Your task to perform on an android device: Open calendar and show me the second week of next month Image 0: 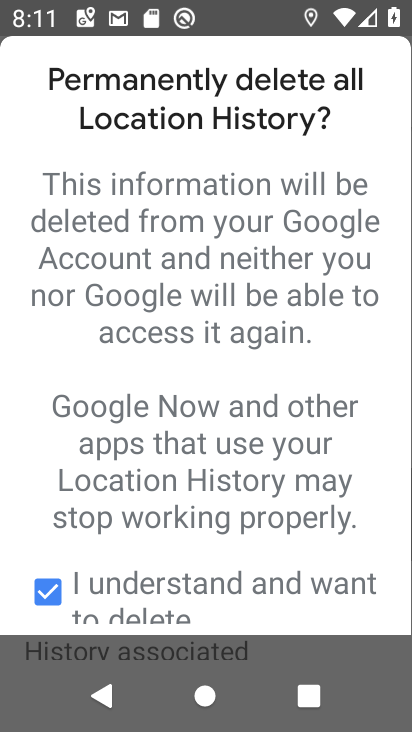
Step 0: press home button
Your task to perform on an android device: Open calendar and show me the second week of next month Image 1: 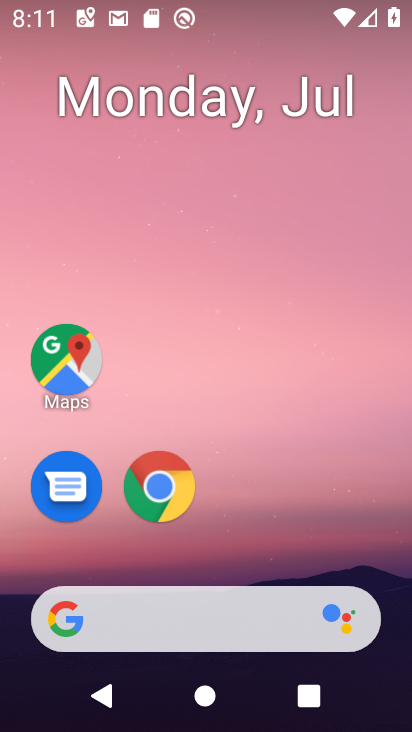
Step 1: drag from (377, 521) to (372, 161)
Your task to perform on an android device: Open calendar and show me the second week of next month Image 2: 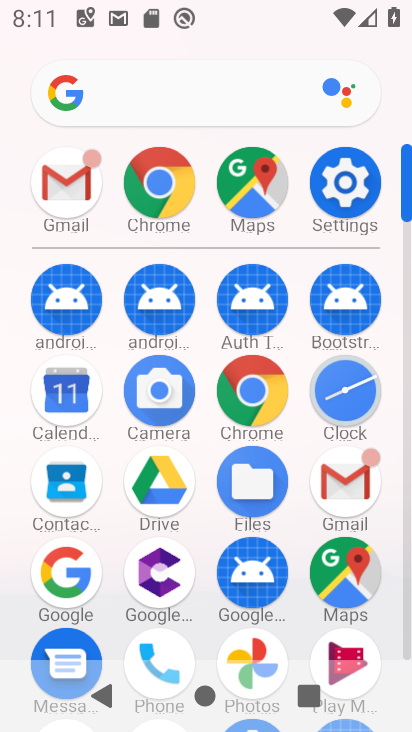
Step 2: click (68, 396)
Your task to perform on an android device: Open calendar and show me the second week of next month Image 3: 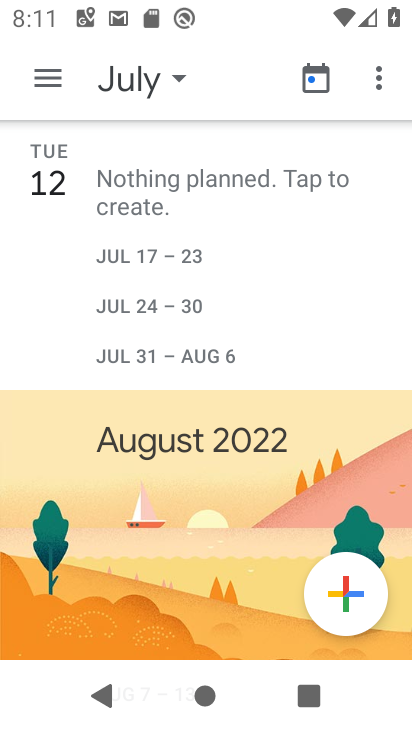
Step 3: click (178, 76)
Your task to perform on an android device: Open calendar and show me the second week of next month Image 4: 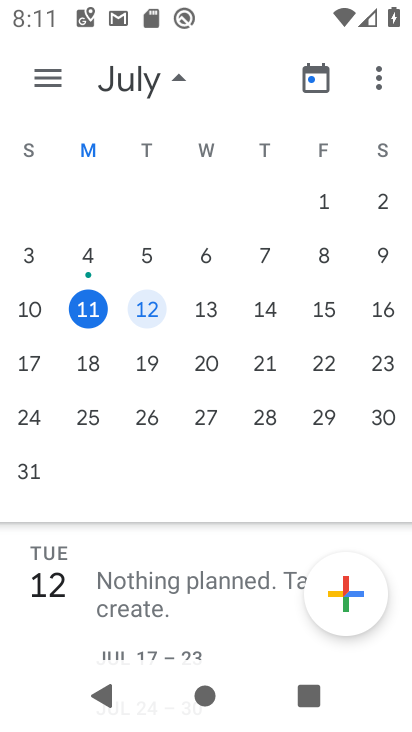
Step 4: drag from (383, 172) to (0, 185)
Your task to perform on an android device: Open calendar and show me the second week of next month Image 5: 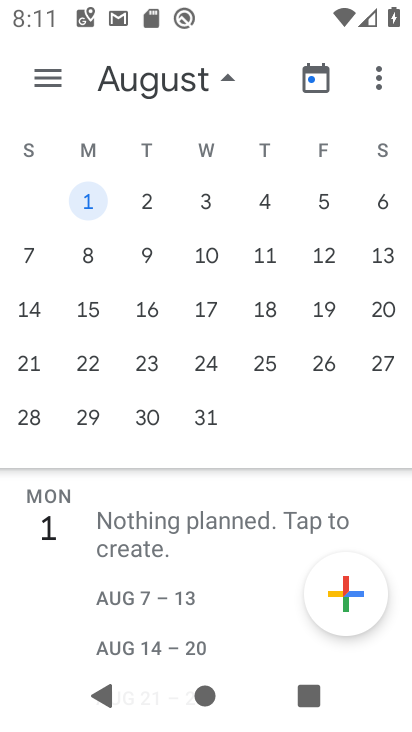
Step 5: click (89, 259)
Your task to perform on an android device: Open calendar and show me the second week of next month Image 6: 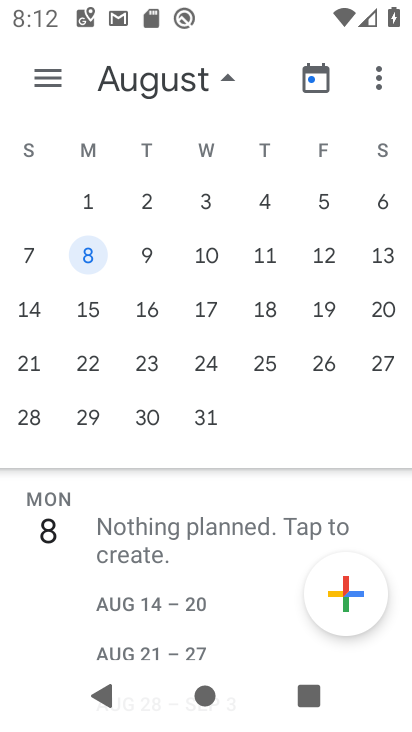
Step 6: task complete